Your task to perform on an android device: What's the weather going to be this weekend? Image 0: 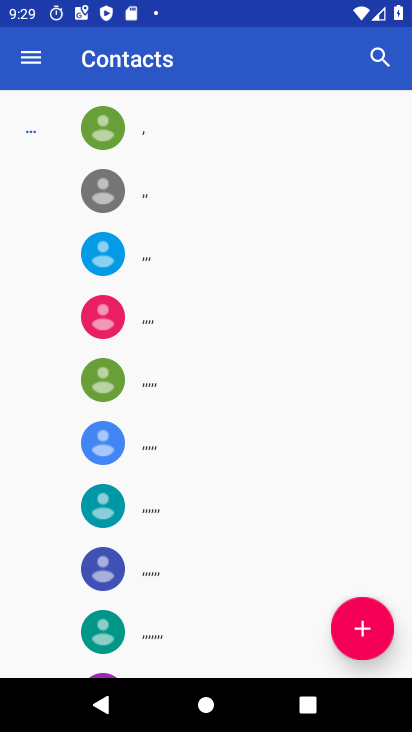
Step 0: press home button
Your task to perform on an android device: What's the weather going to be this weekend? Image 1: 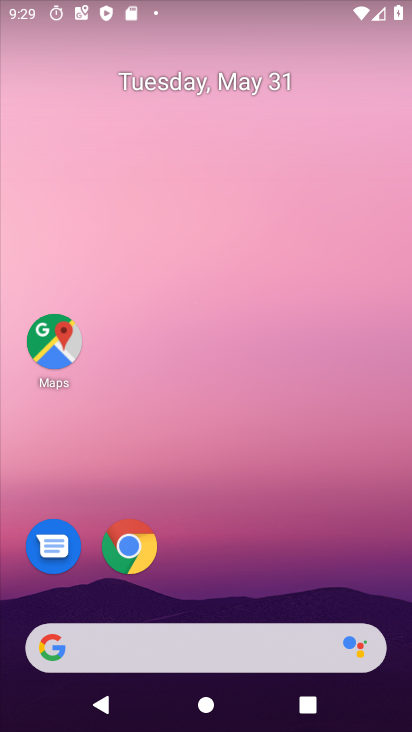
Step 1: click (156, 652)
Your task to perform on an android device: What's the weather going to be this weekend? Image 2: 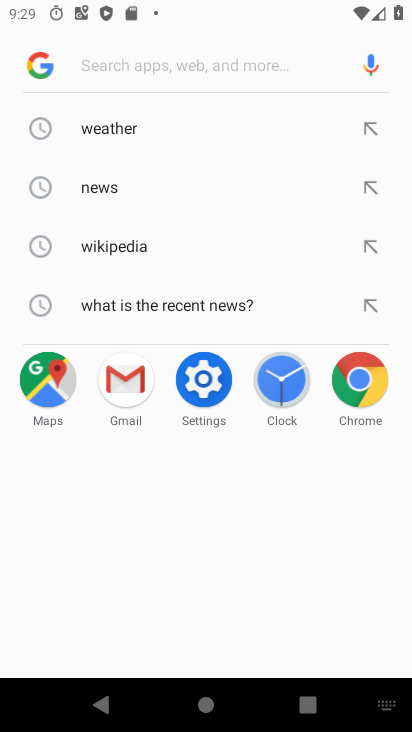
Step 2: click (155, 119)
Your task to perform on an android device: What's the weather going to be this weekend? Image 3: 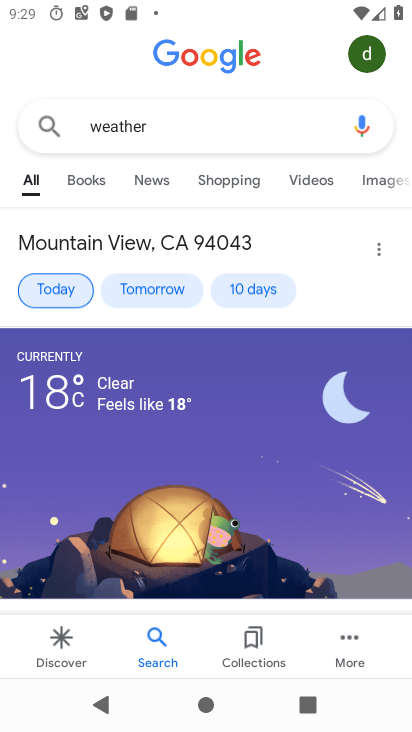
Step 3: click (260, 293)
Your task to perform on an android device: What's the weather going to be this weekend? Image 4: 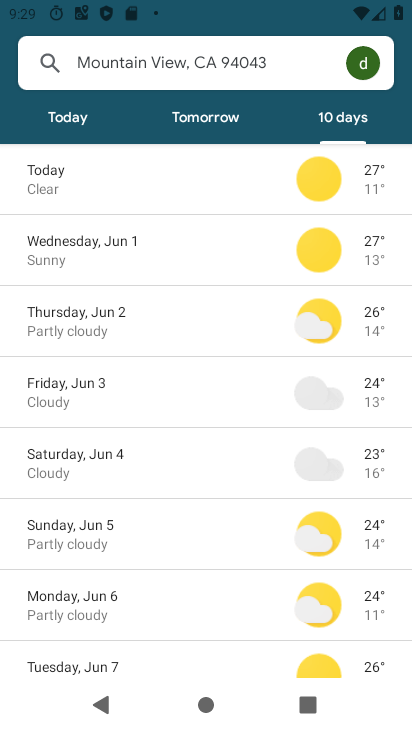
Step 4: task complete